Your task to perform on an android device: open app "AliExpress" (install if not already installed) Image 0: 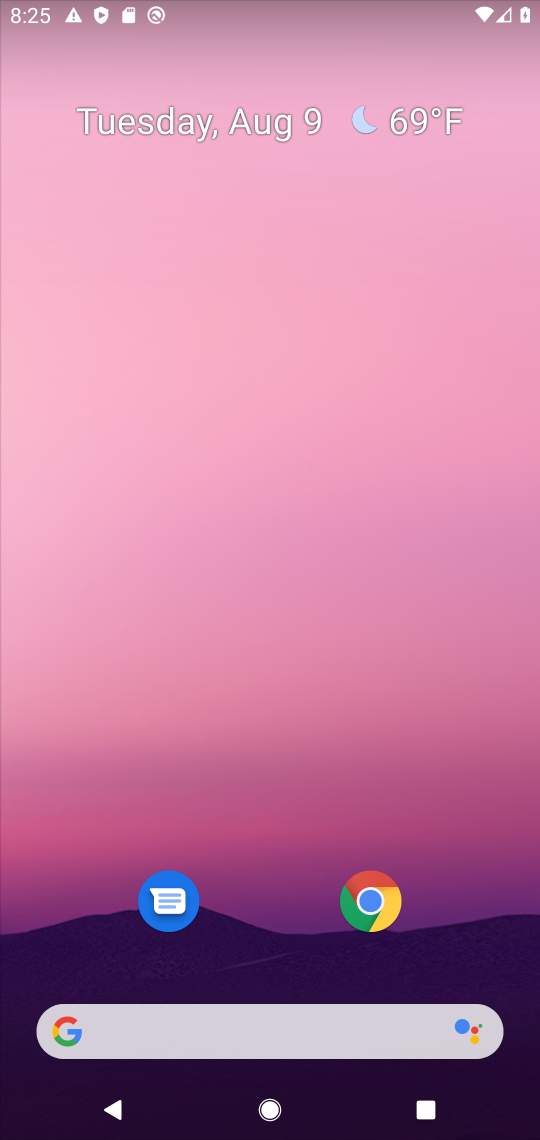
Step 0: drag from (278, 1040) to (286, 440)
Your task to perform on an android device: open app "AliExpress" (install if not already installed) Image 1: 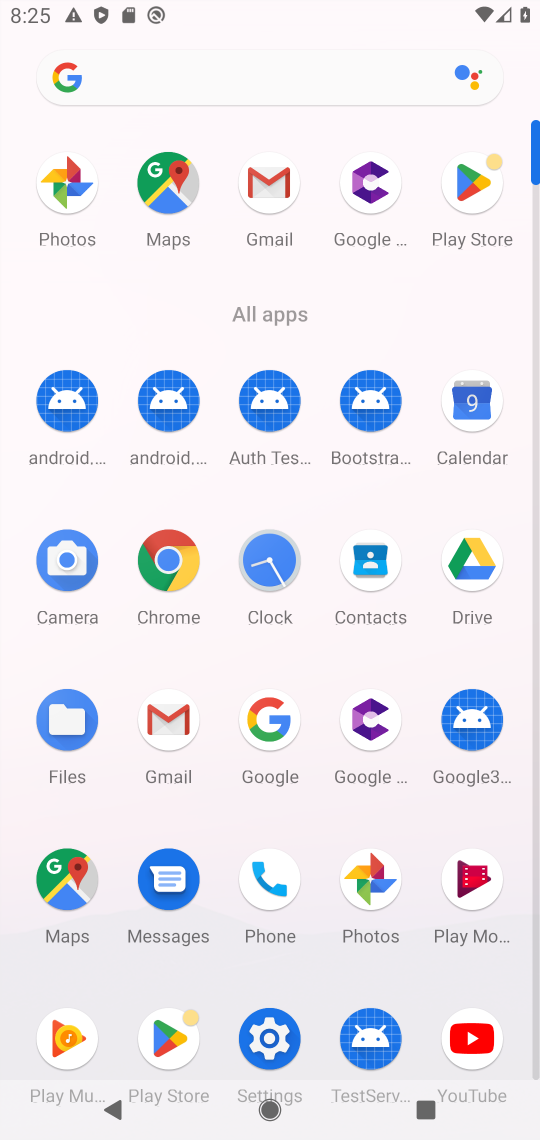
Step 1: click (158, 1037)
Your task to perform on an android device: open app "AliExpress" (install if not already installed) Image 2: 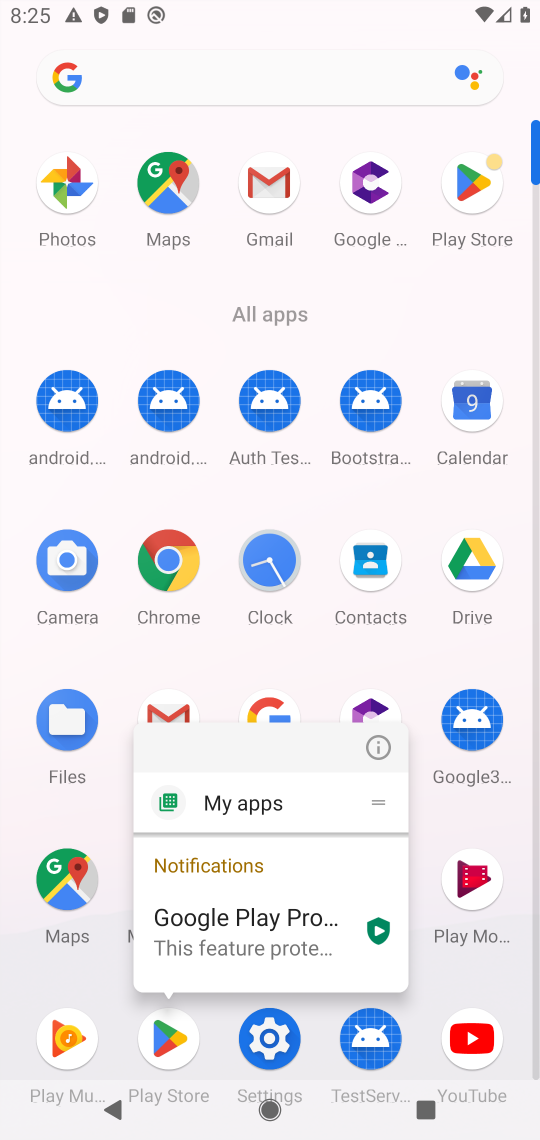
Step 2: click (158, 1037)
Your task to perform on an android device: open app "AliExpress" (install if not already installed) Image 3: 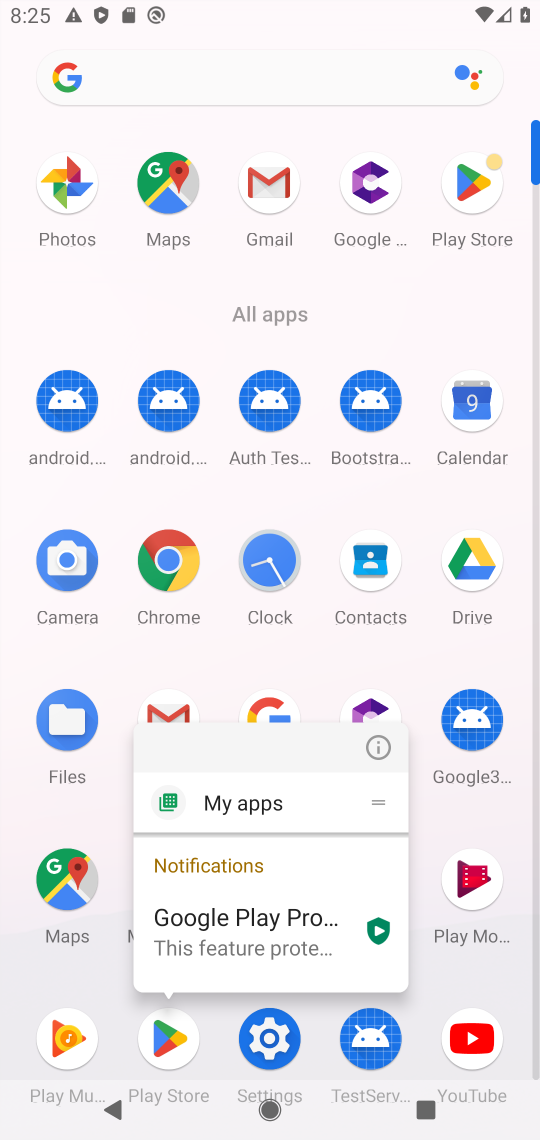
Step 3: click (158, 1037)
Your task to perform on an android device: open app "AliExpress" (install if not already installed) Image 4: 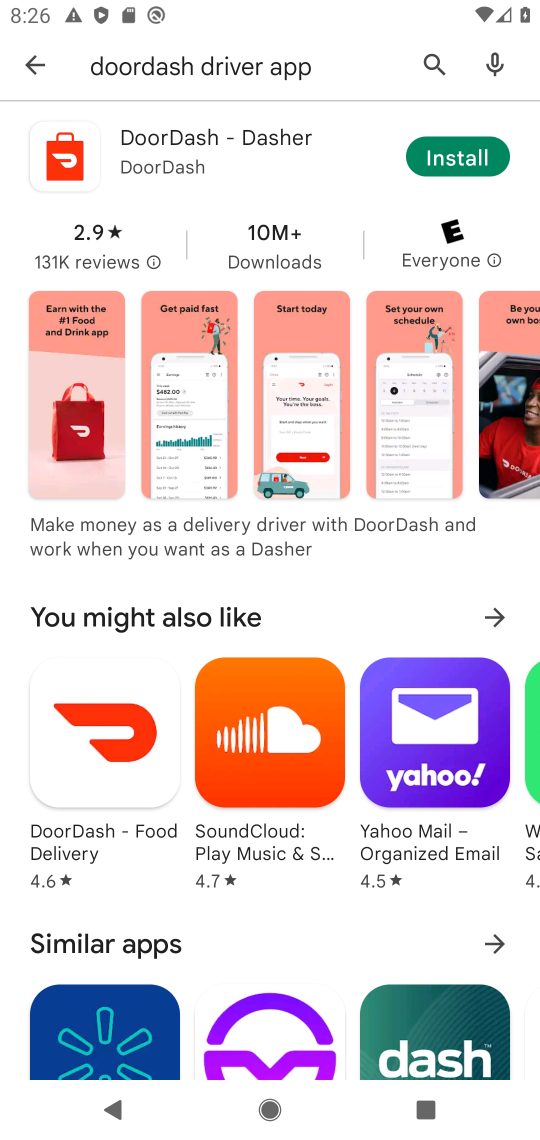
Step 4: click (56, 60)
Your task to perform on an android device: open app "AliExpress" (install if not already installed) Image 5: 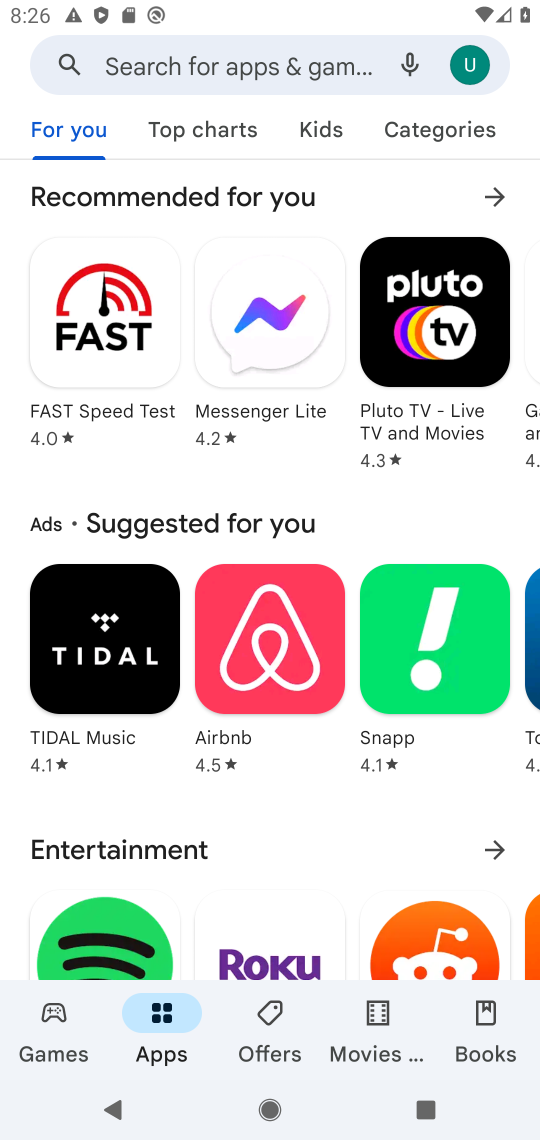
Step 5: click (240, 60)
Your task to perform on an android device: open app "AliExpress" (install if not already installed) Image 6: 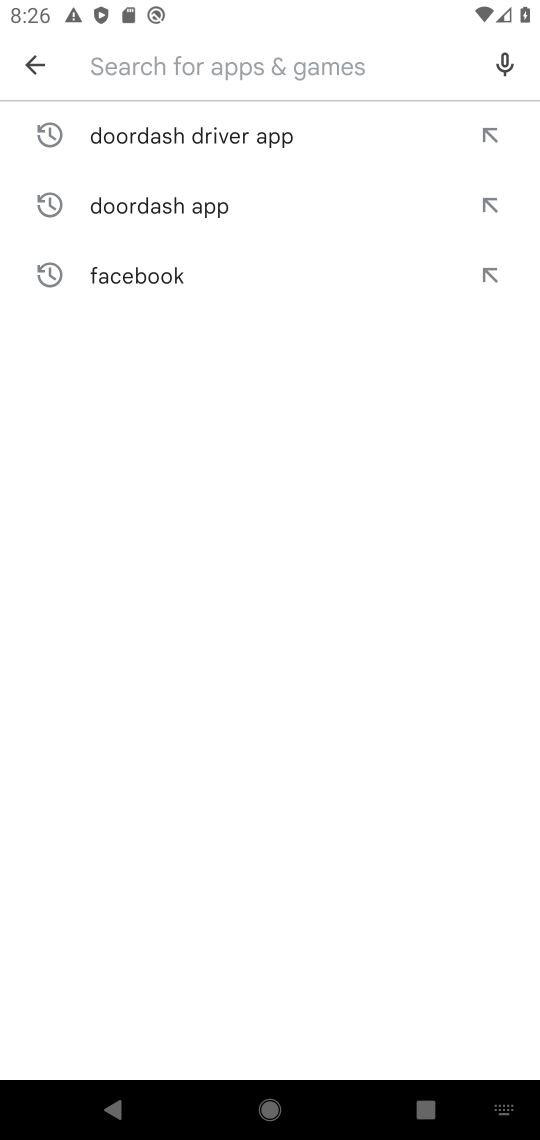
Step 6: type ""AliExpress""
Your task to perform on an android device: open app "AliExpress" (install if not already installed) Image 7: 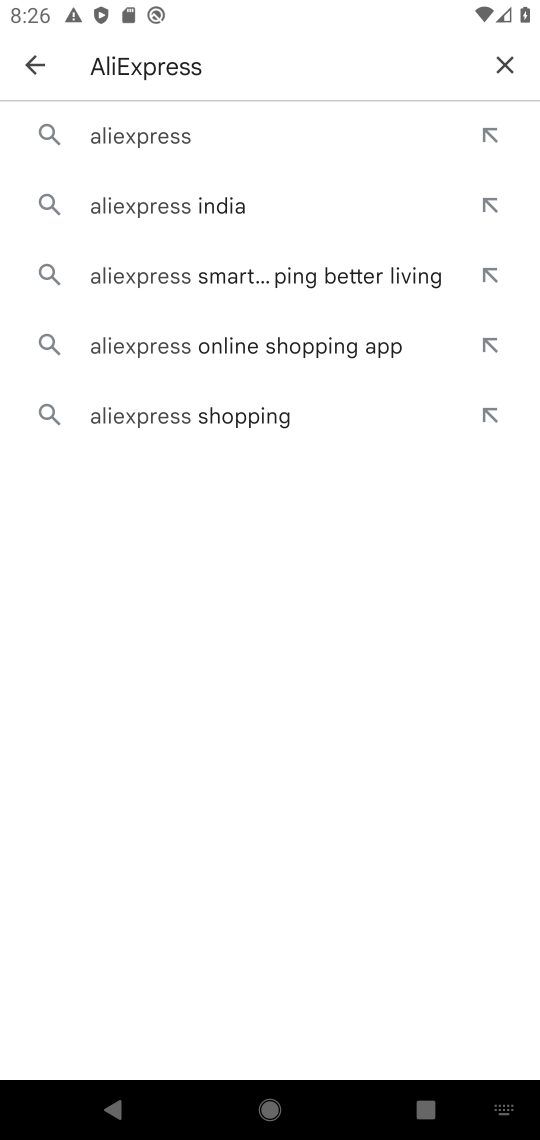
Step 7: click (227, 121)
Your task to perform on an android device: open app "AliExpress" (install if not already installed) Image 8: 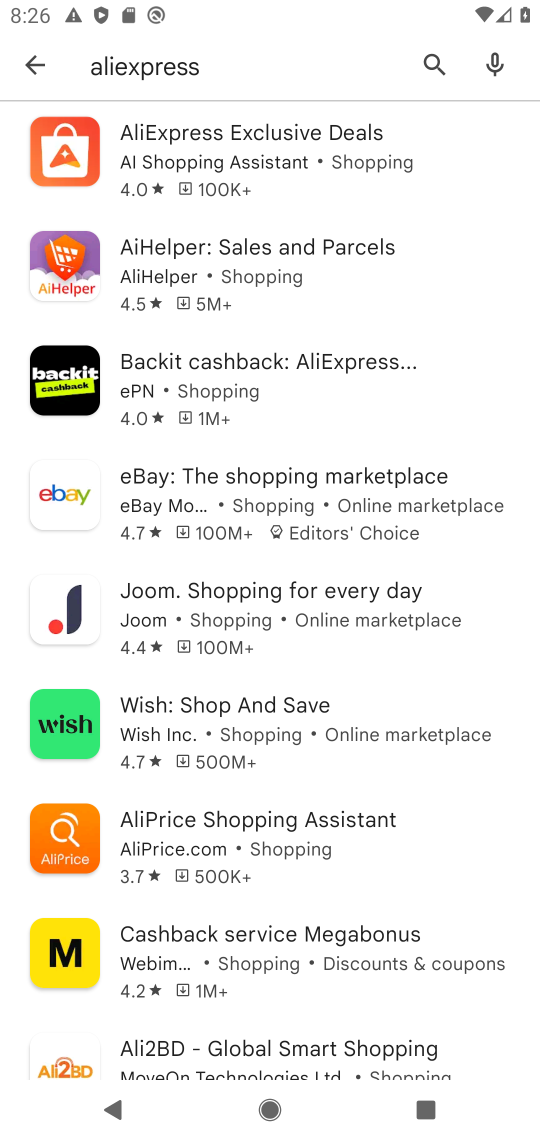
Step 8: click (296, 149)
Your task to perform on an android device: open app "AliExpress" (install if not already installed) Image 9: 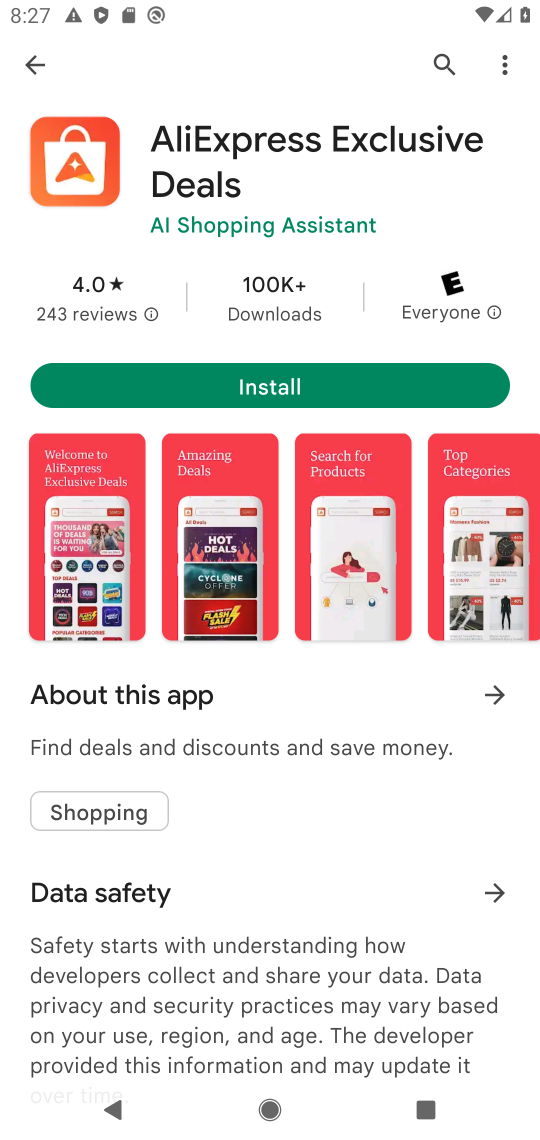
Step 9: click (288, 364)
Your task to perform on an android device: open app "AliExpress" (install if not already installed) Image 10: 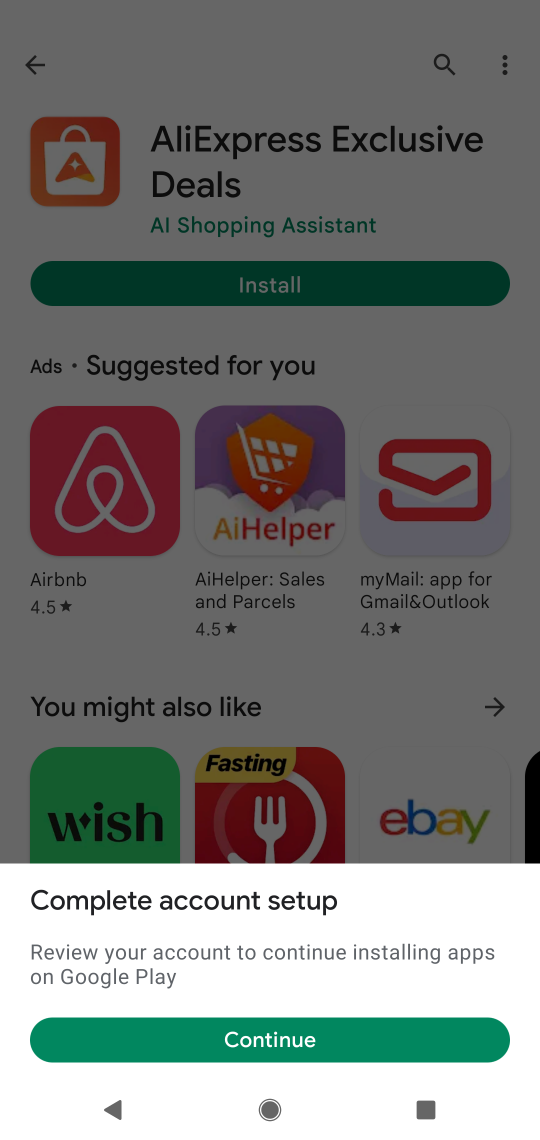
Step 10: click (306, 1022)
Your task to perform on an android device: open app "AliExpress" (install if not already installed) Image 11: 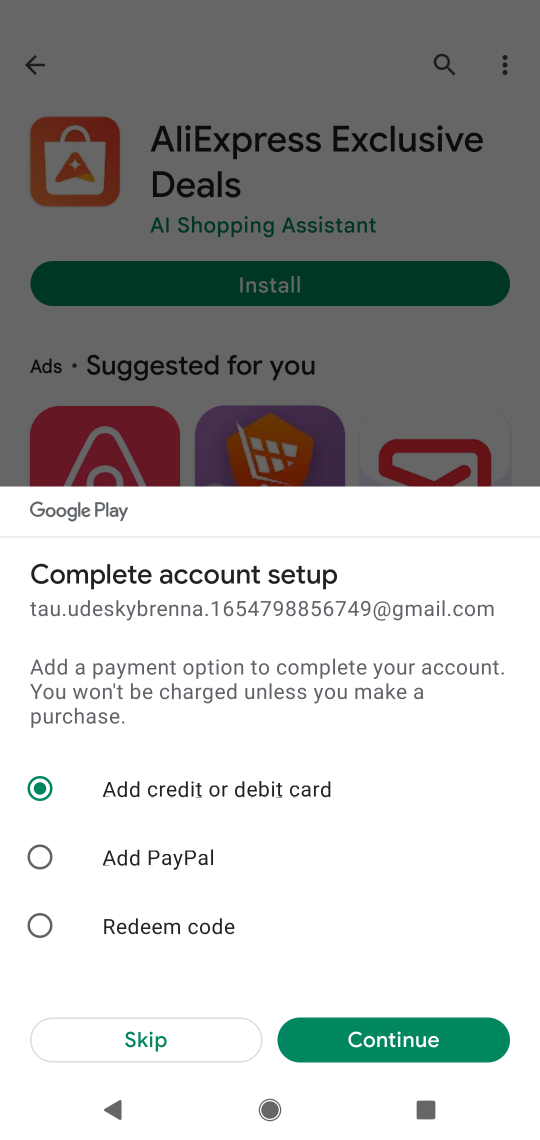
Step 11: click (35, 871)
Your task to perform on an android device: open app "AliExpress" (install if not already installed) Image 12: 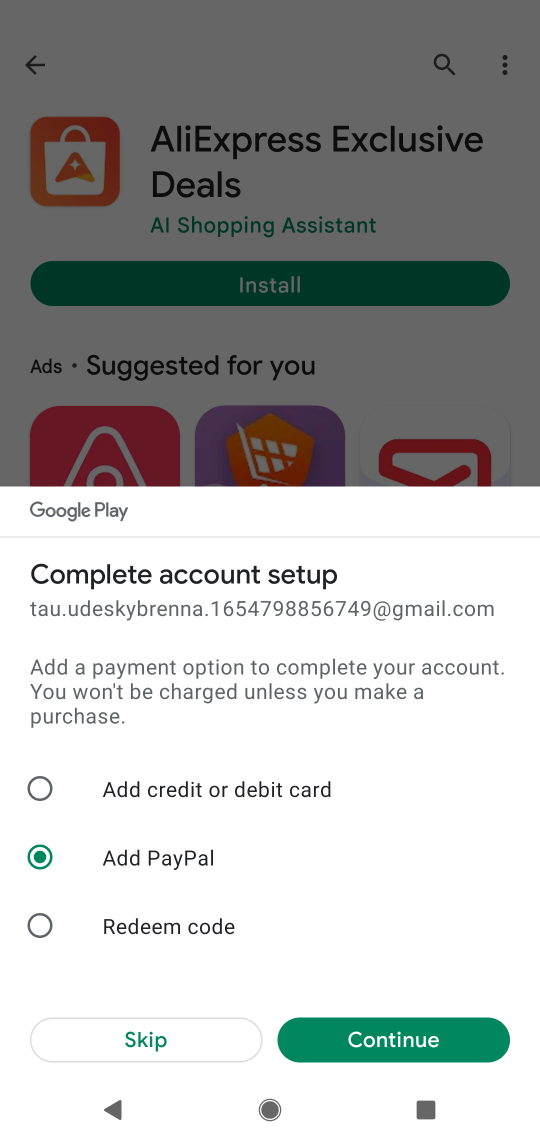
Step 12: click (367, 1038)
Your task to perform on an android device: open app "AliExpress" (install if not already installed) Image 13: 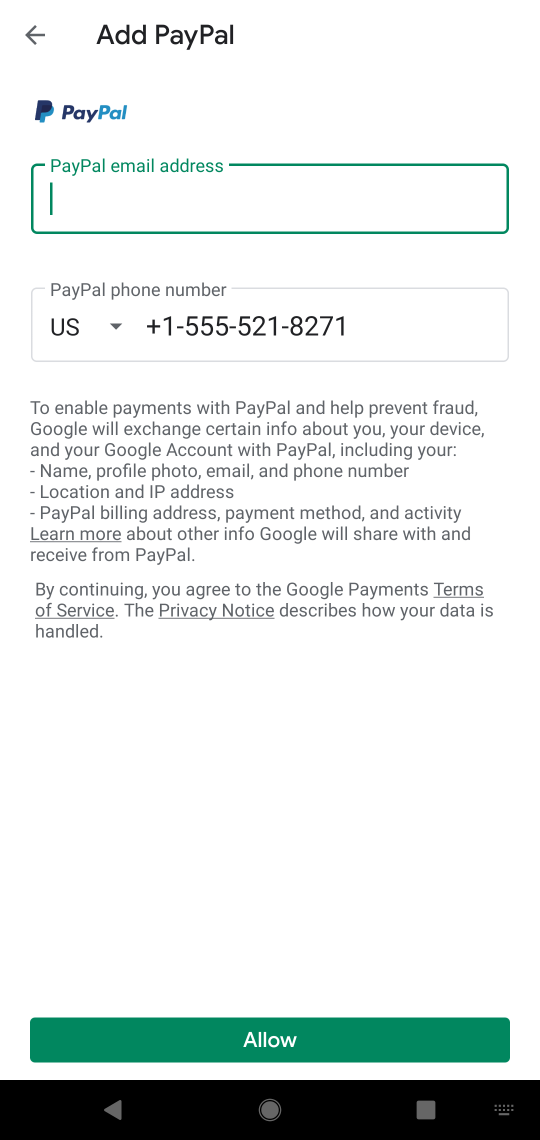
Step 13: task complete